Your task to perform on an android device: Go to privacy settings Image 0: 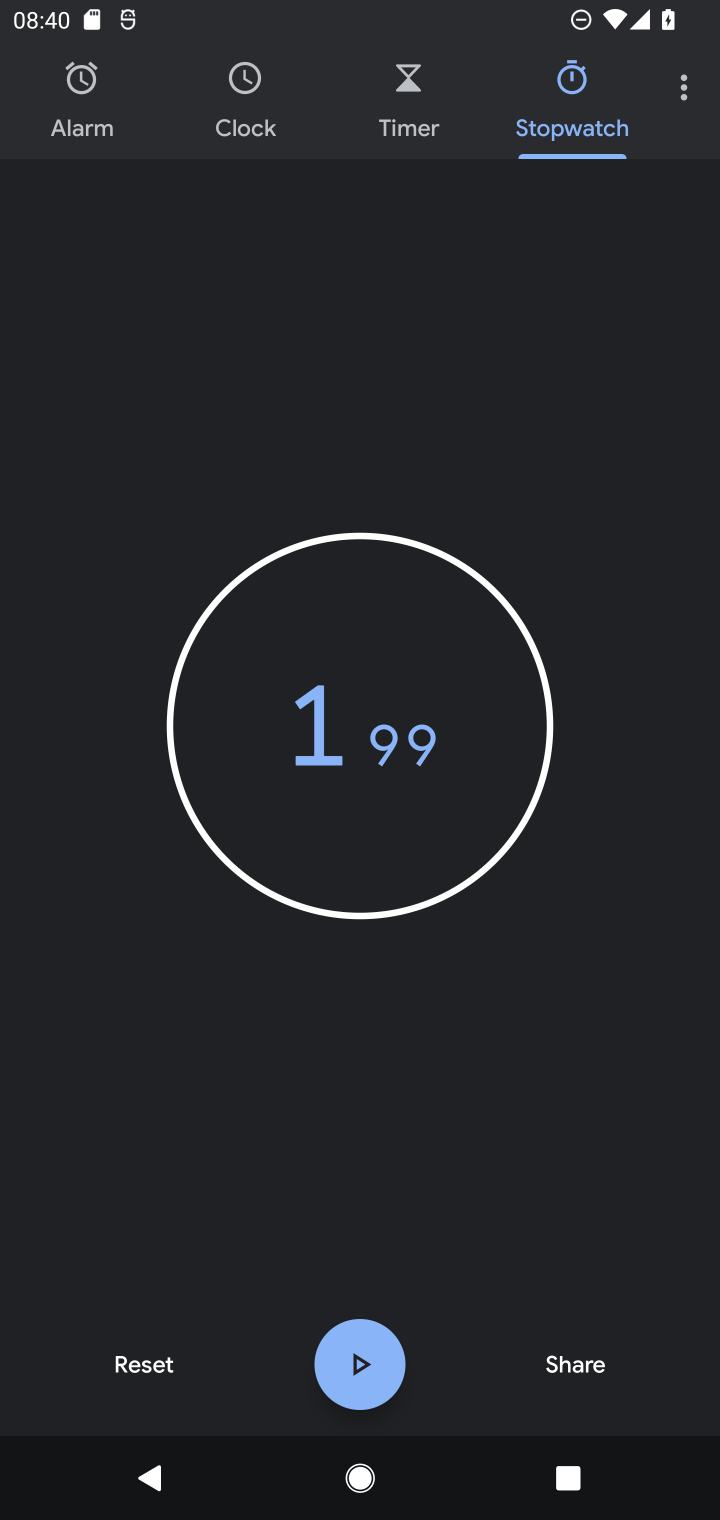
Step 0: press home button
Your task to perform on an android device: Go to privacy settings Image 1: 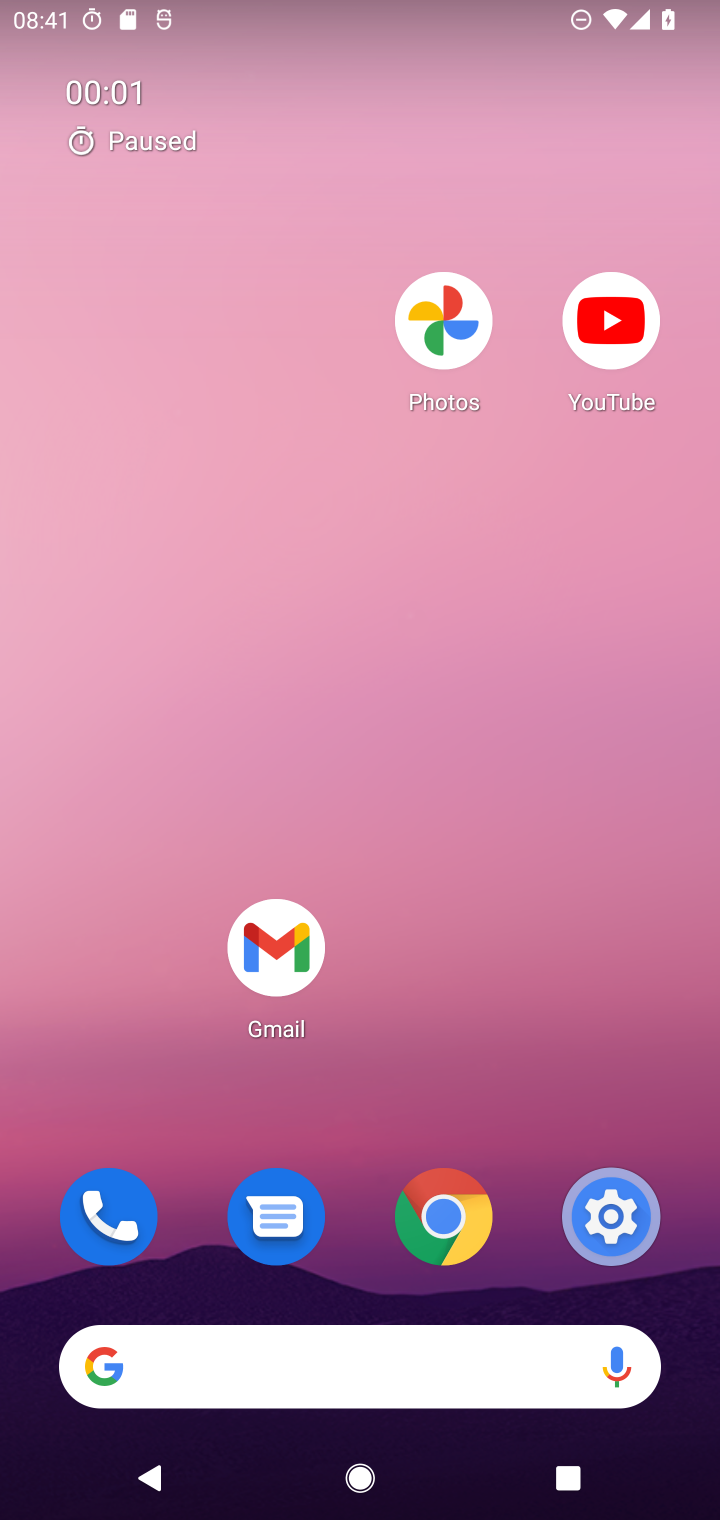
Step 1: drag from (508, 1134) to (521, 286)
Your task to perform on an android device: Go to privacy settings Image 2: 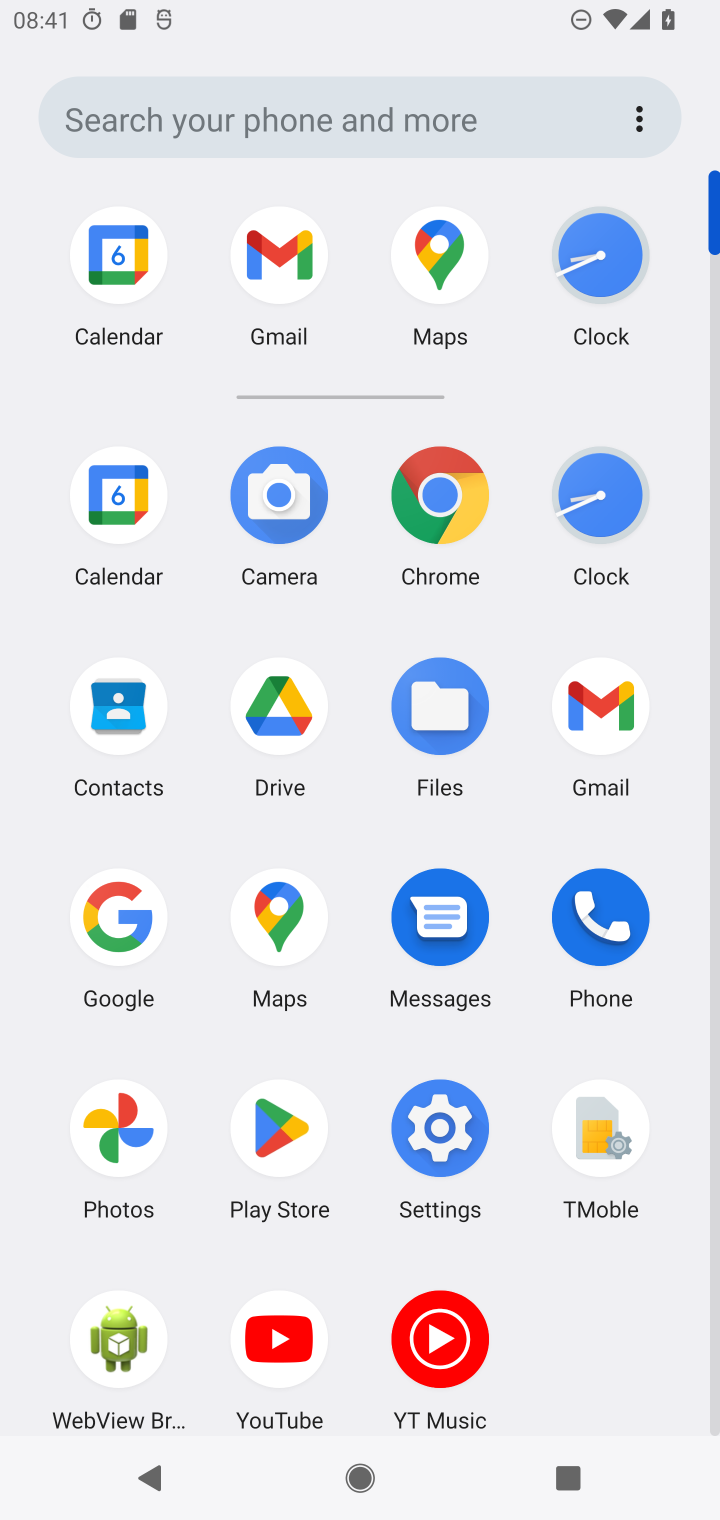
Step 2: click (453, 1122)
Your task to perform on an android device: Go to privacy settings Image 3: 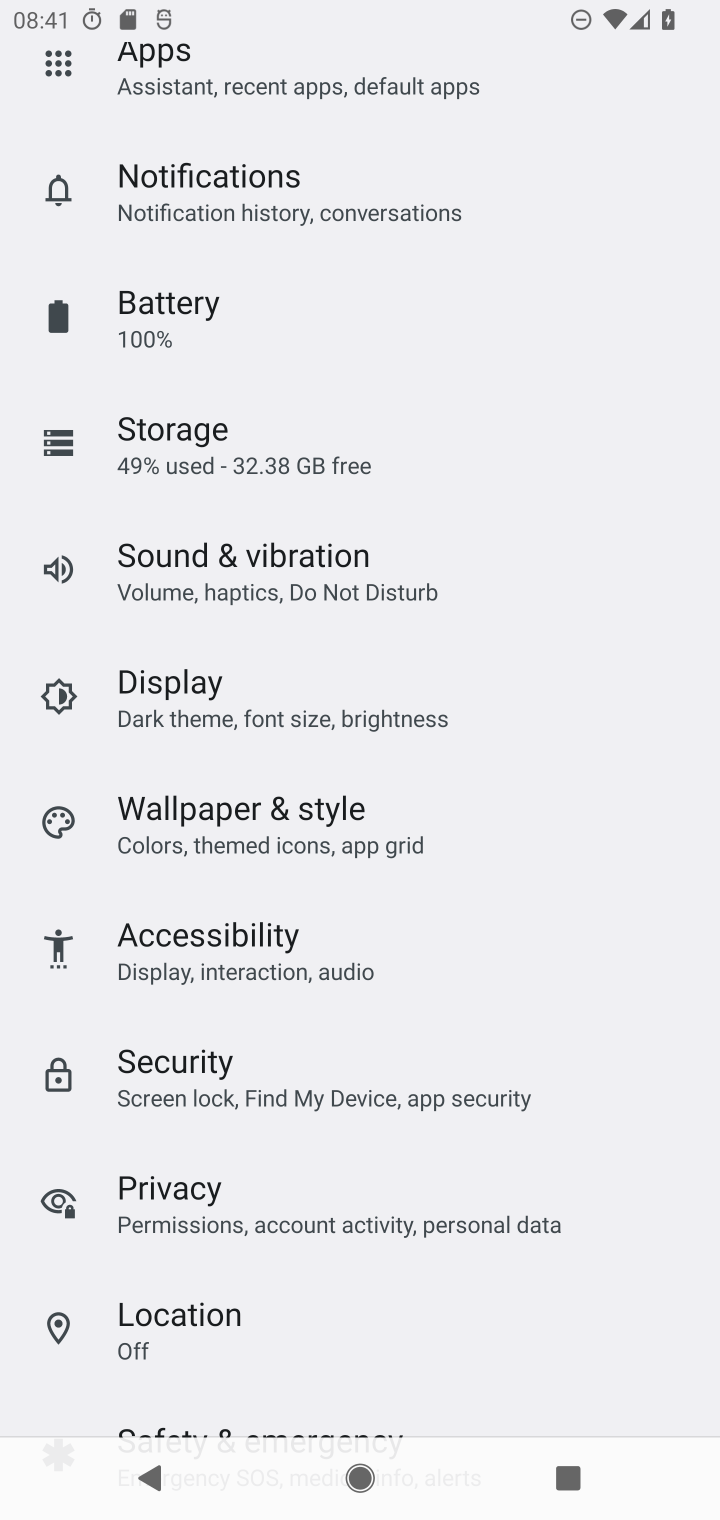
Step 3: click (202, 1195)
Your task to perform on an android device: Go to privacy settings Image 4: 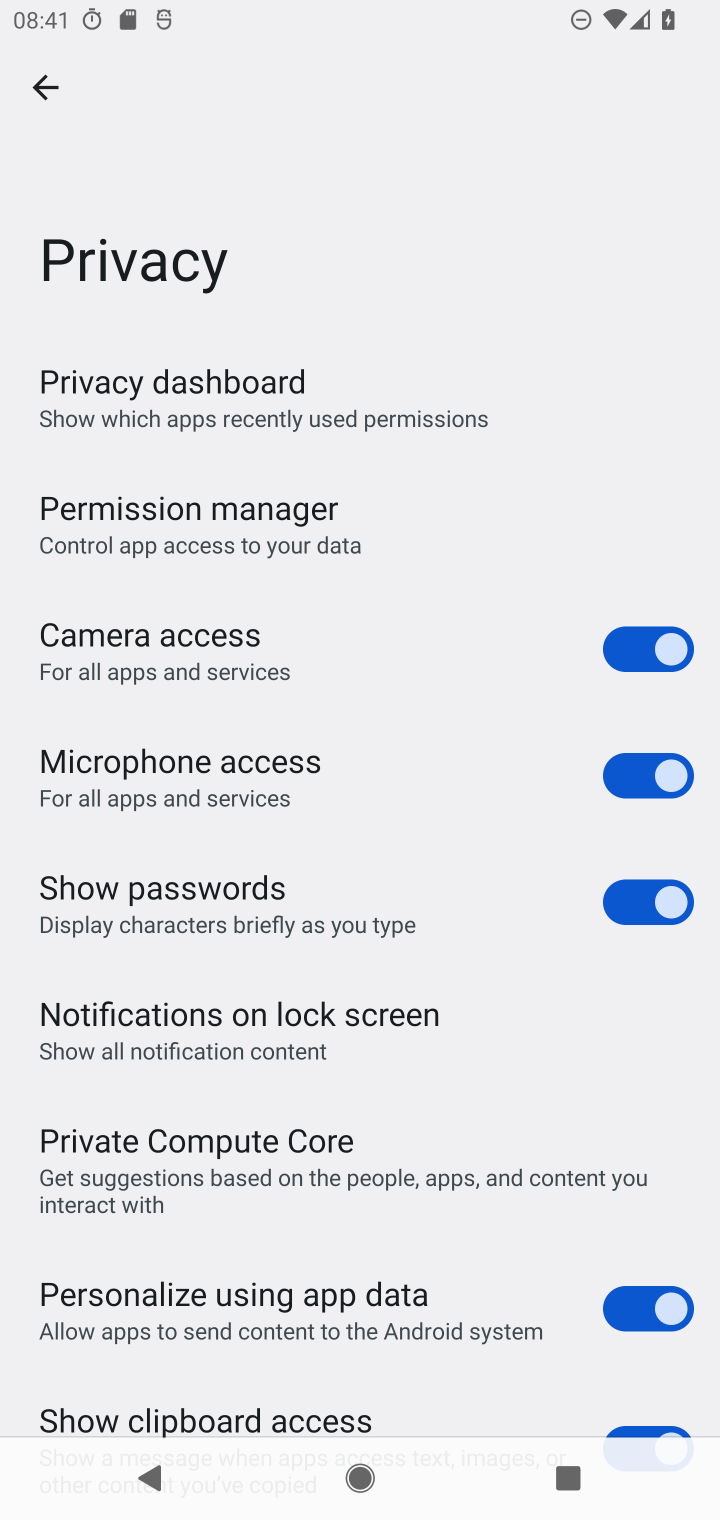
Step 4: task complete